Your task to perform on an android device: empty trash in google photos Image 0: 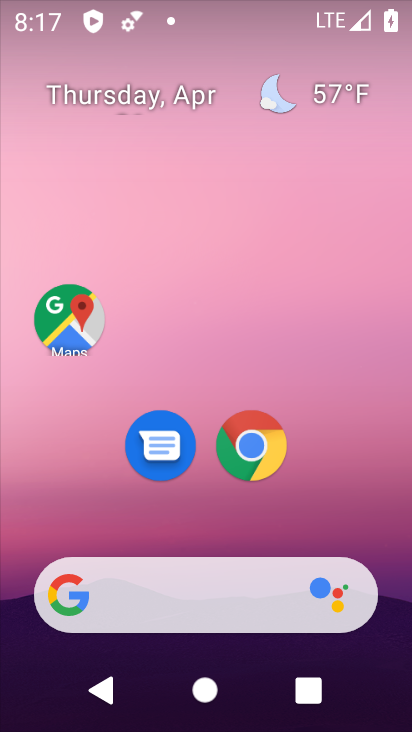
Step 0: drag from (386, 540) to (406, 709)
Your task to perform on an android device: empty trash in google photos Image 1: 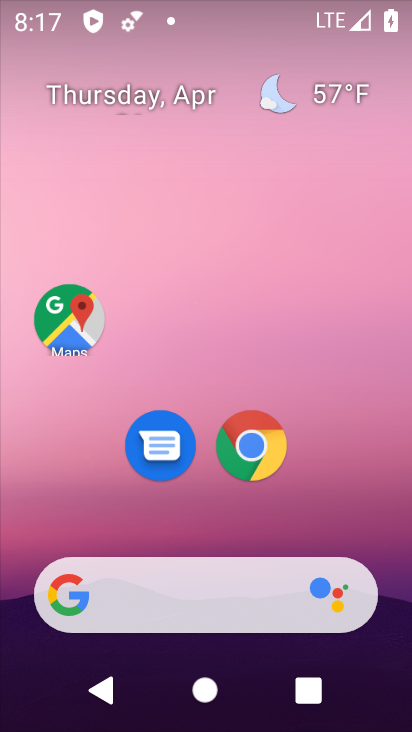
Step 1: click (394, 606)
Your task to perform on an android device: empty trash in google photos Image 2: 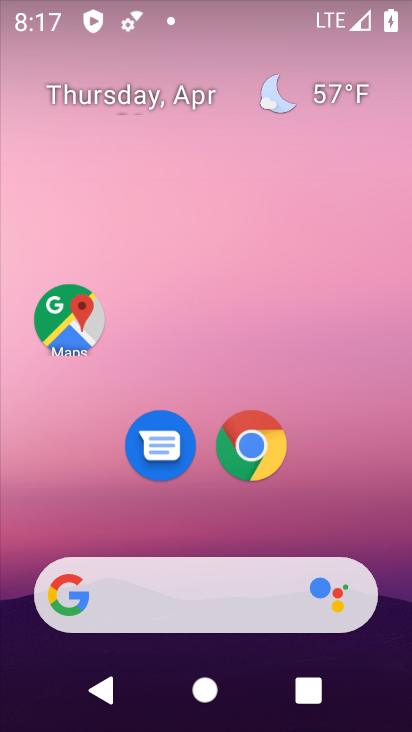
Step 2: drag from (391, 591) to (406, 4)
Your task to perform on an android device: empty trash in google photos Image 3: 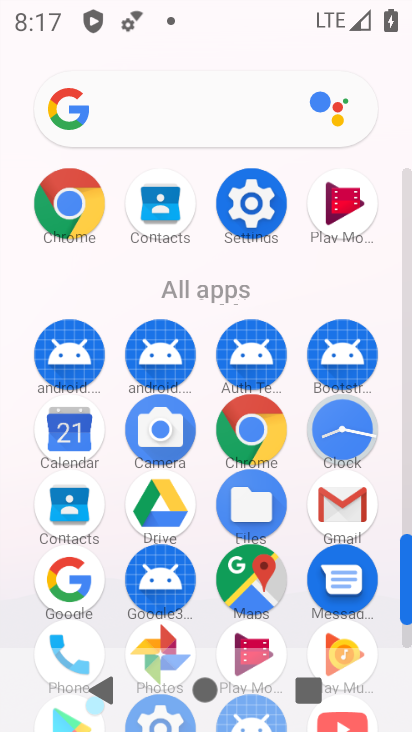
Step 3: click (158, 633)
Your task to perform on an android device: empty trash in google photos Image 4: 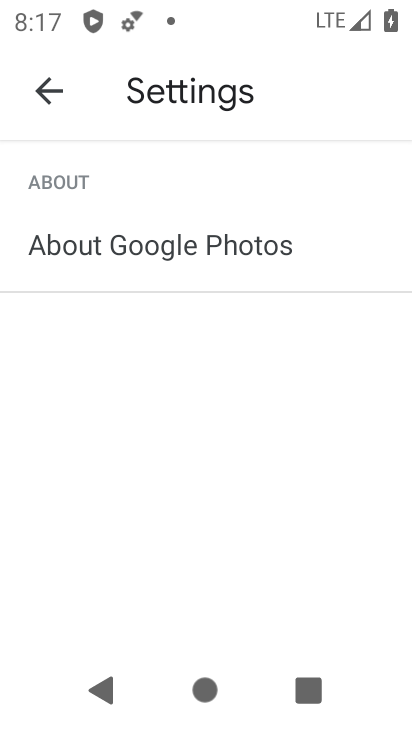
Step 4: click (47, 91)
Your task to perform on an android device: empty trash in google photos Image 5: 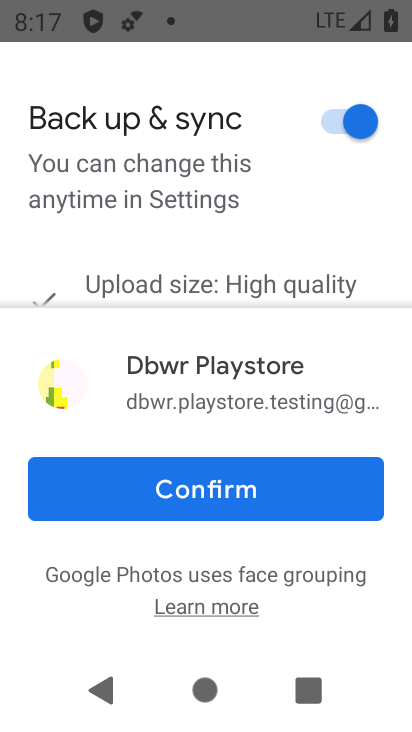
Step 5: click (232, 492)
Your task to perform on an android device: empty trash in google photos Image 6: 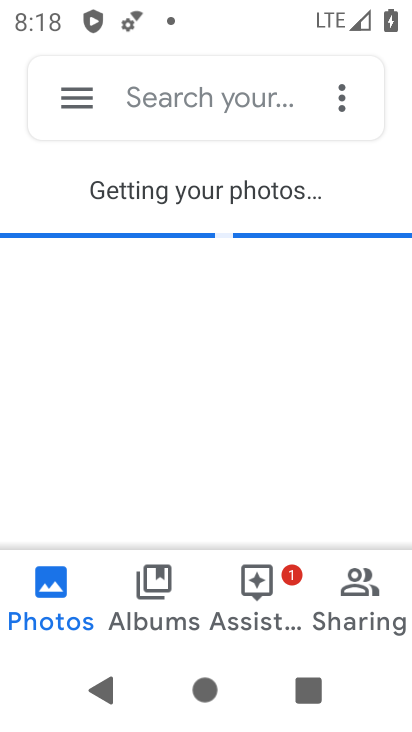
Step 6: click (70, 97)
Your task to perform on an android device: empty trash in google photos Image 7: 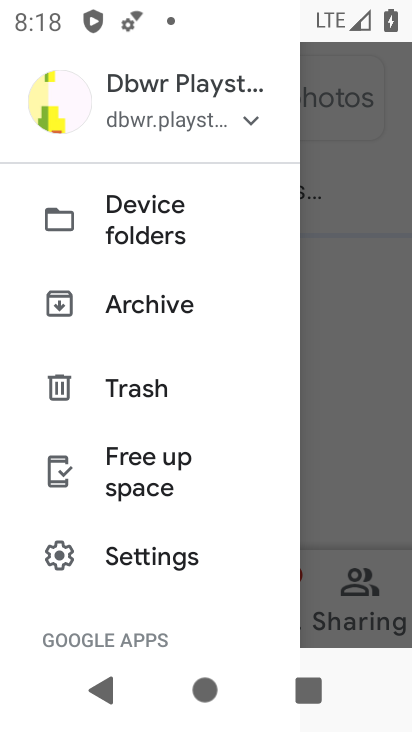
Step 7: click (137, 394)
Your task to perform on an android device: empty trash in google photos Image 8: 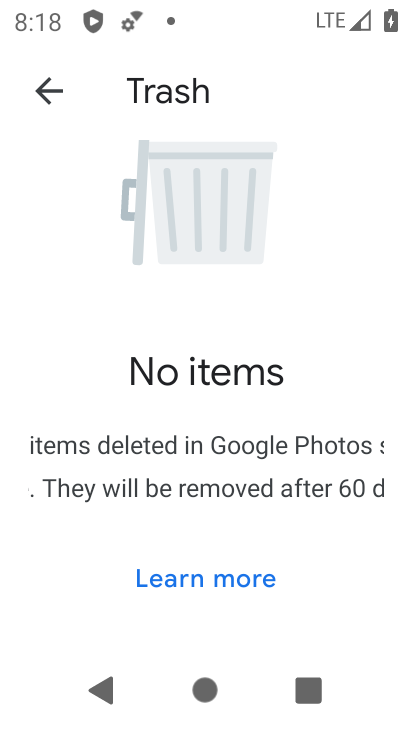
Step 8: task complete